Your task to perform on an android device: snooze an email in the gmail app Image 0: 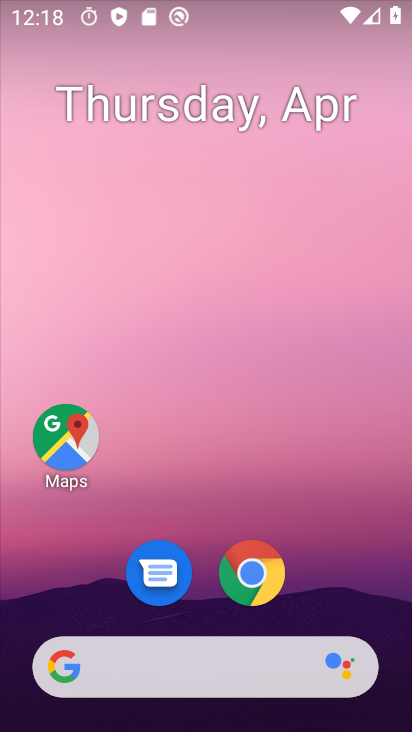
Step 0: drag from (388, 640) to (383, 333)
Your task to perform on an android device: snooze an email in the gmail app Image 1: 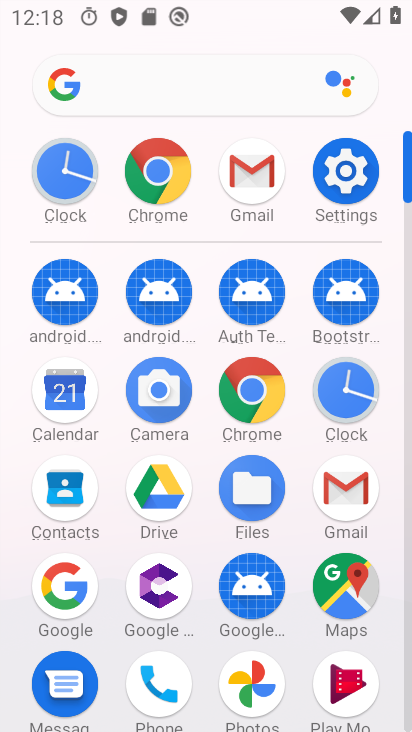
Step 1: click (347, 491)
Your task to perform on an android device: snooze an email in the gmail app Image 2: 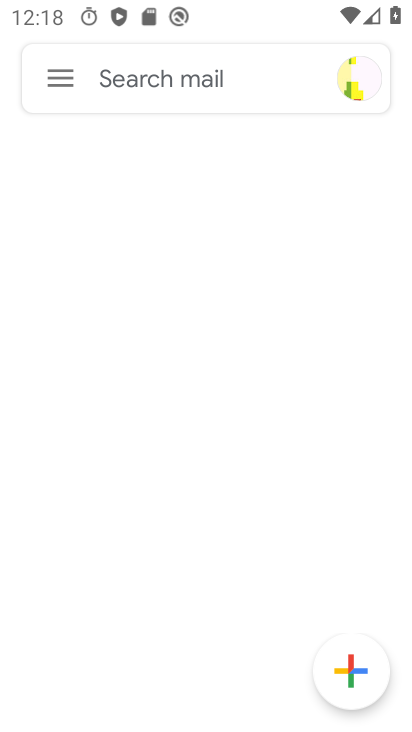
Step 2: click (58, 81)
Your task to perform on an android device: snooze an email in the gmail app Image 3: 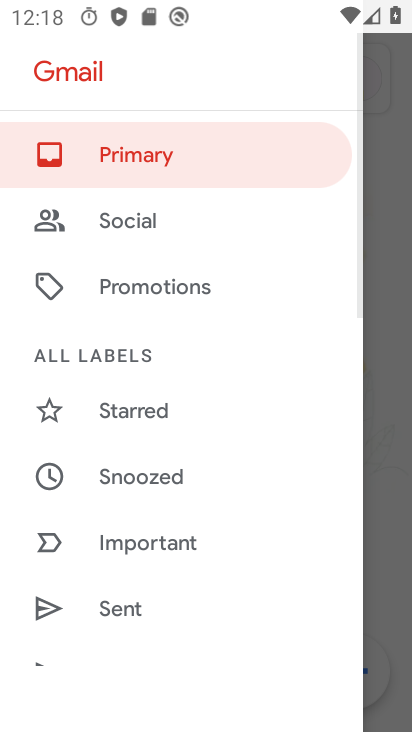
Step 3: click (124, 157)
Your task to perform on an android device: snooze an email in the gmail app Image 4: 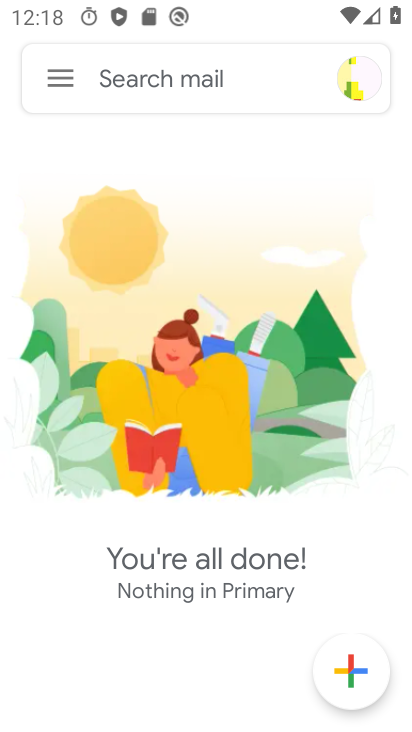
Step 4: task complete